Your task to perform on an android device: Search for vegetarian restaurants on Maps Image 0: 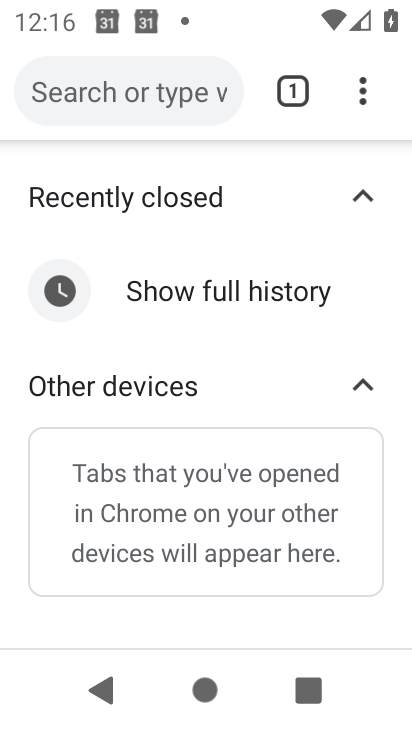
Step 0: press home button
Your task to perform on an android device: Search for vegetarian restaurants on Maps Image 1: 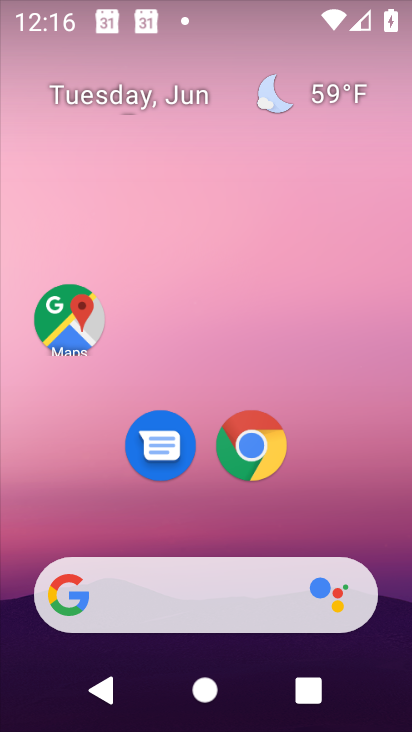
Step 1: click (65, 327)
Your task to perform on an android device: Search for vegetarian restaurants on Maps Image 2: 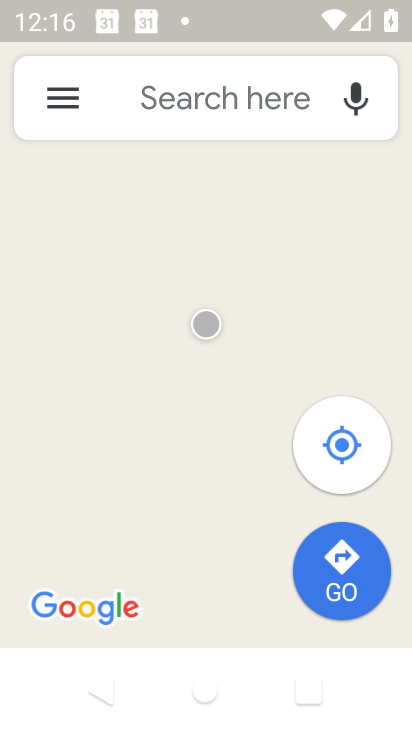
Step 2: click (223, 128)
Your task to perform on an android device: Search for vegetarian restaurants on Maps Image 3: 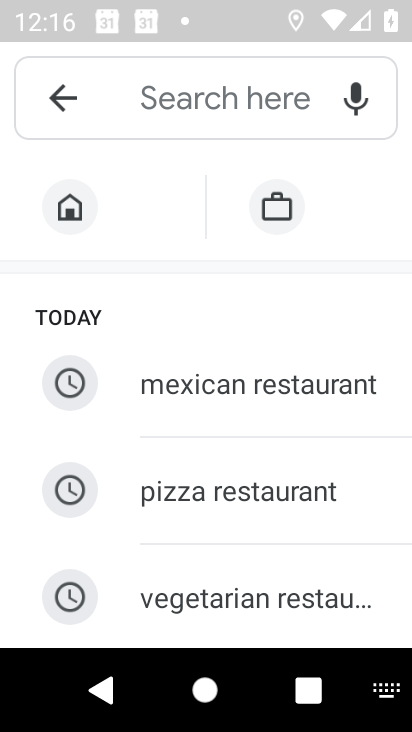
Step 3: type "vegetari"
Your task to perform on an android device: Search for vegetarian restaurants on Maps Image 4: 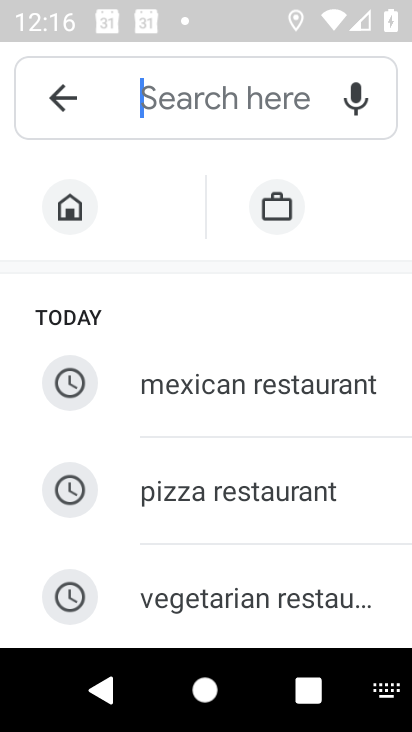
Step 4: click (189, 594)
Your task to perform on an android device: Search for vegetarian restaurants on Maps Image 5: 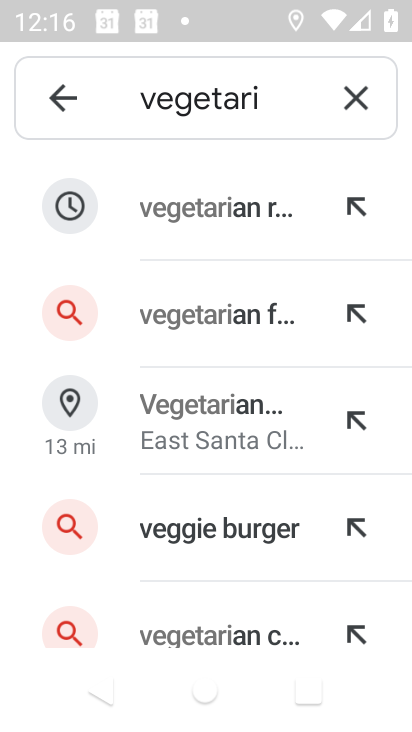
Step 5: click (194, 226)
Your task to perform on an android device: Search for vegetarian restaurants on Maps Image 6: 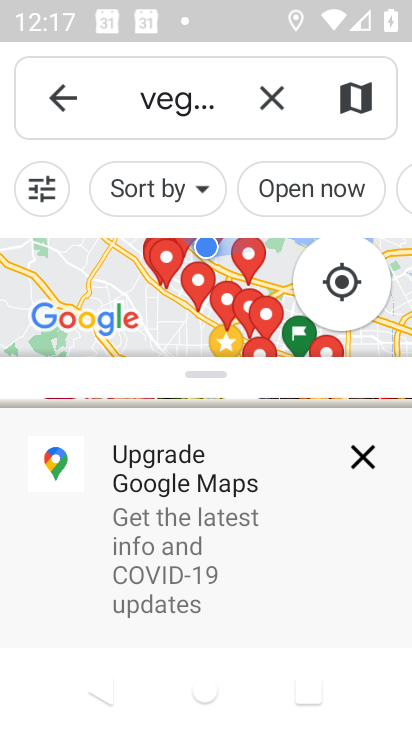
Step 6: task complete